Your task to perform on an android device: empty trash in google photos Image 0: 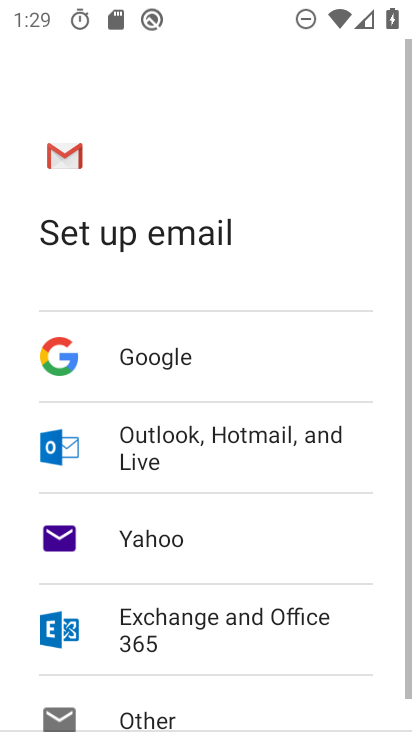
Step 0: press home button
Your task to perform on an android device: empty trash in google photos Image 1: 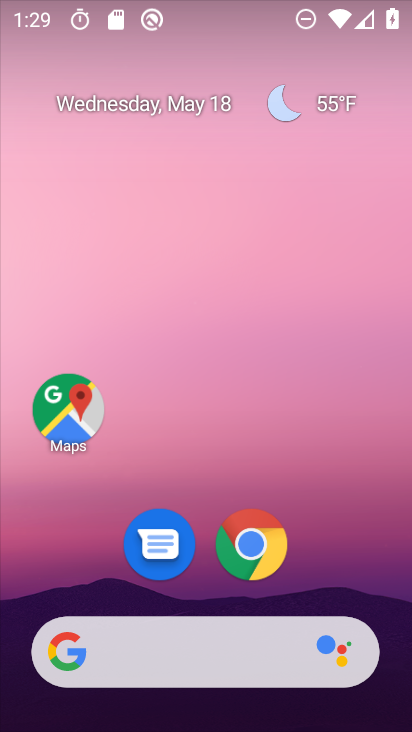
Step 1: drag from (336, 567) to (223, 99)
Your task to perform on an android device: empty trash in google photos Image 2: 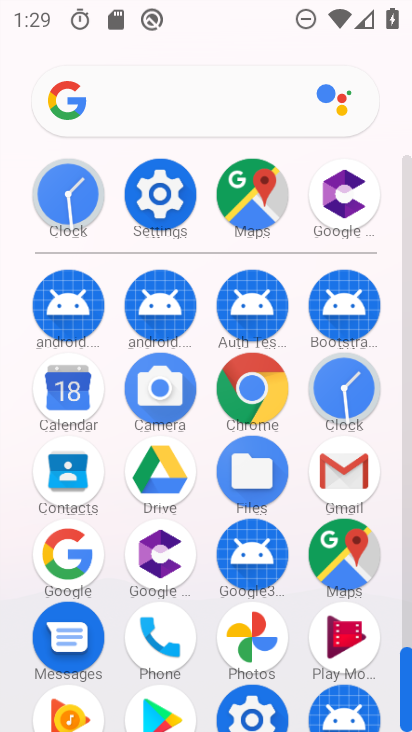
Step 2: click (239, 637)
Your task to perform on an android device: empty trash in google photos Image 3: 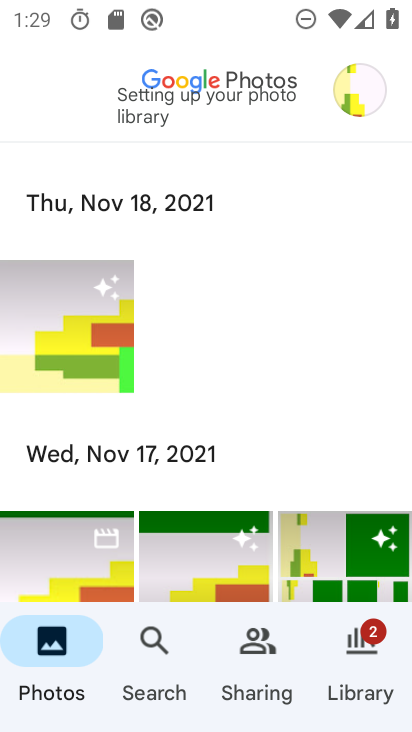
Step 3: click (379, 639)
Your task to perform on an android device: empty trash in google photos Image 4: 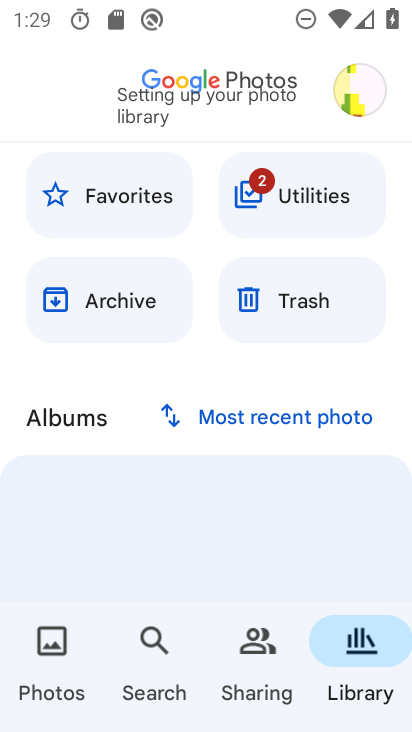
Step 4: click (309, 287)
Your task to perform on an android device: empty trash in google photos Image 5: 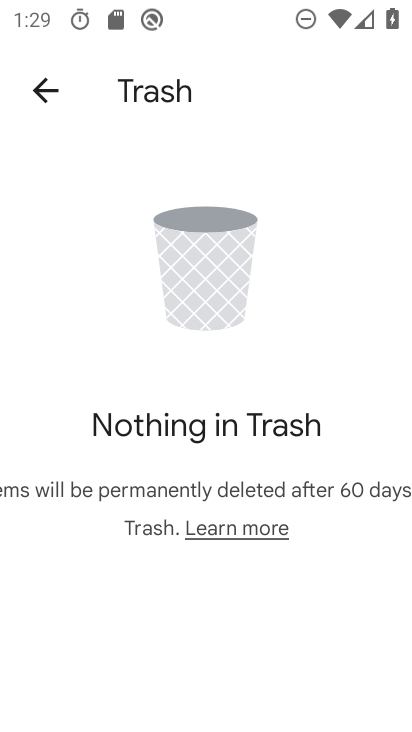
Step 5: task complete